Your task to perform on an android device: Go to display settings Image 0: 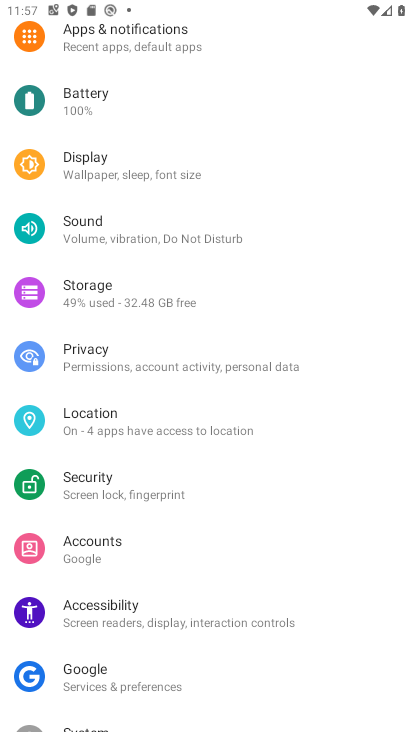
Step 0: press home button
Your task to perform on an android device: Go to display settings Image 1: 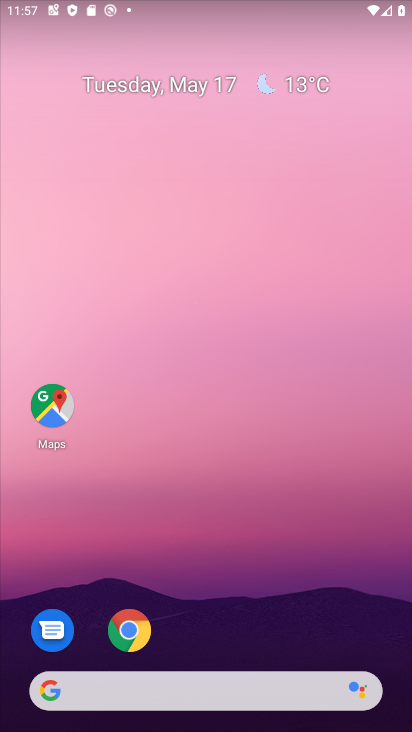
Step 1: drag from (180, 728) to (127, 90)
Your task to perform on an android device: Go to display settings Image 2: 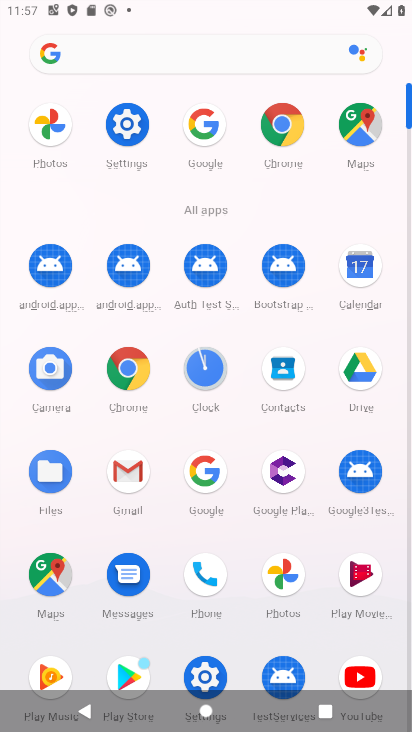
Step 2: click (126, 124)
Your task to perform on an android device: Go to display settings Image 3: 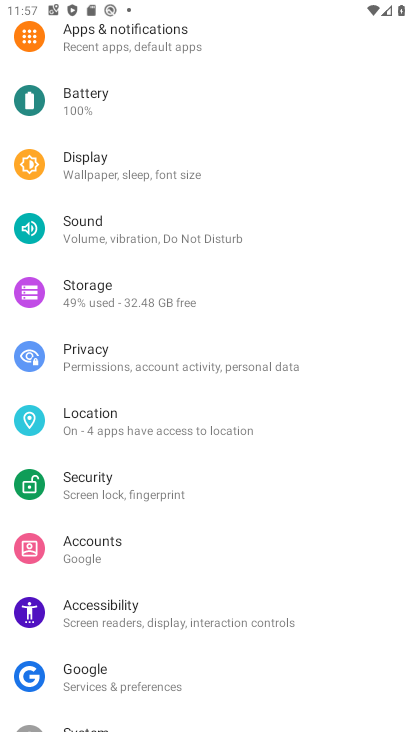
Step 3: click (94, 162)
Your task to perform on an android device: Go to display settings Image 4: 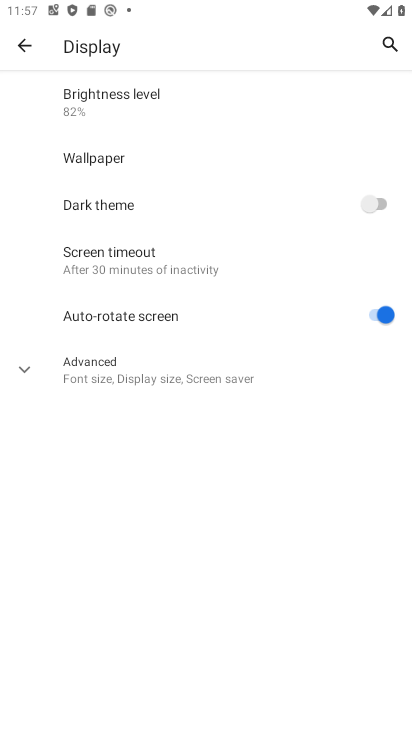
Step 4: task complete